Your task to perform on an android device: Empty the shopping cart on bestbuy. Search for razer huntsman on bestbuy, select the first entry, and add it to the cart. Image 0: 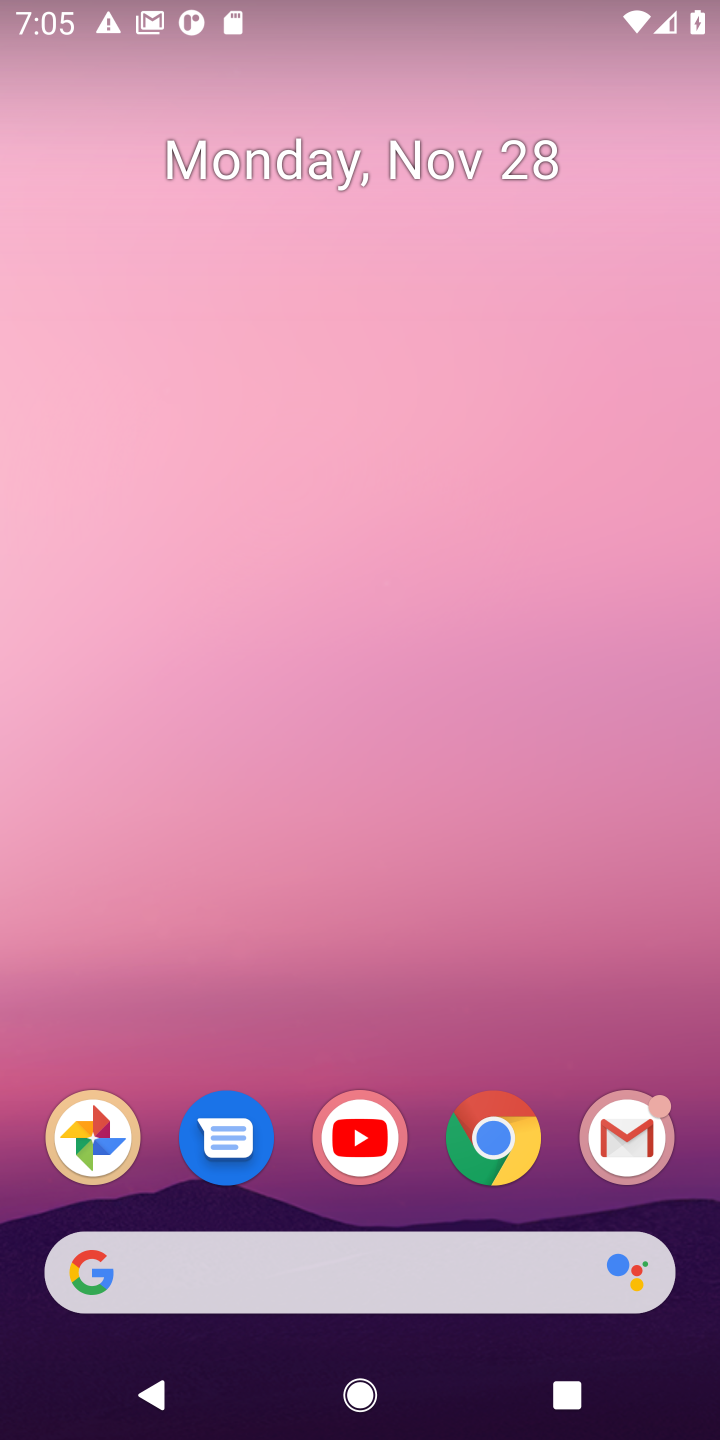
Step 0: click (486, 1142)
Your task to perform on an android device: Empty the shopping cart on bestbuy. Search for razer huntsman on bestbuy, select the first entry, and add it to the cart. Image 1: 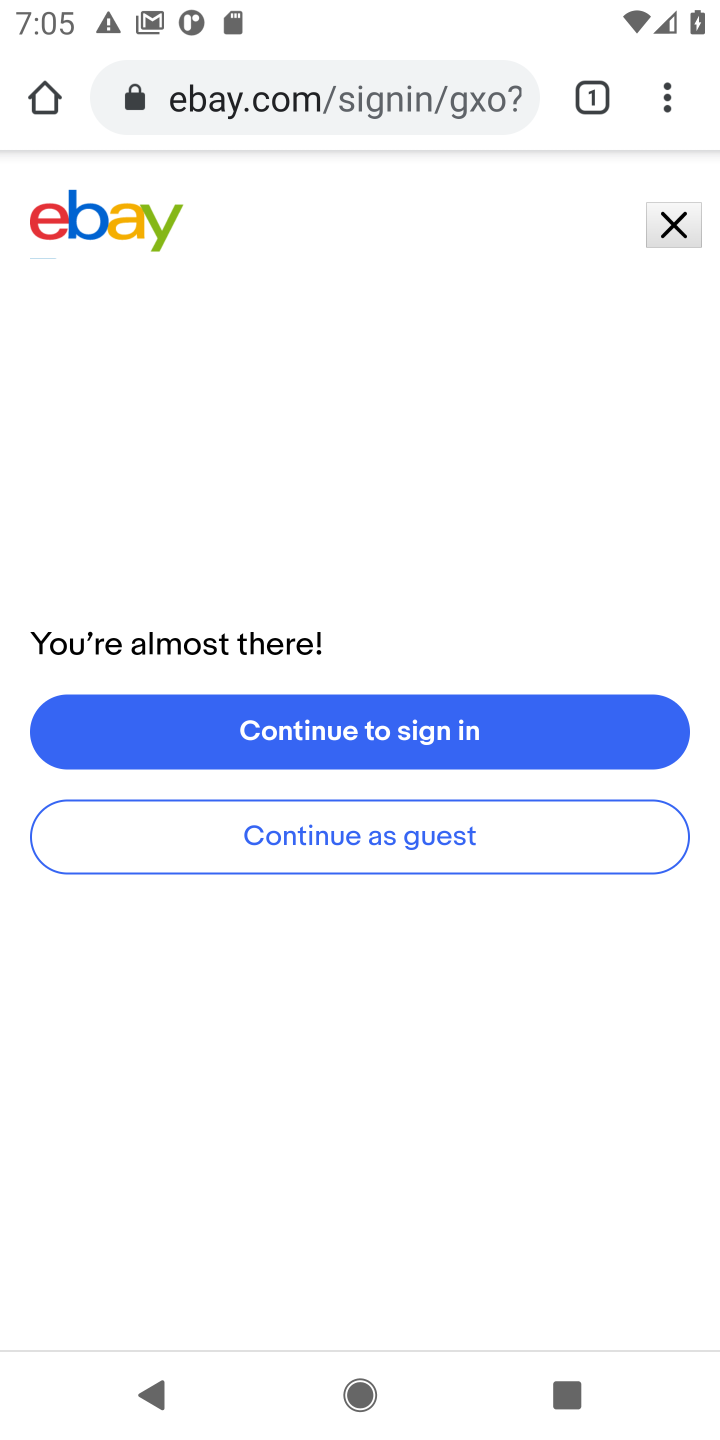
Step 1: click (274, 100)
Your task to perform on an android device: Empty the shopping cart on bestbuy. Search for razer huntsman on bestbuy, select the first entry, and add it to the cart. Image 2: 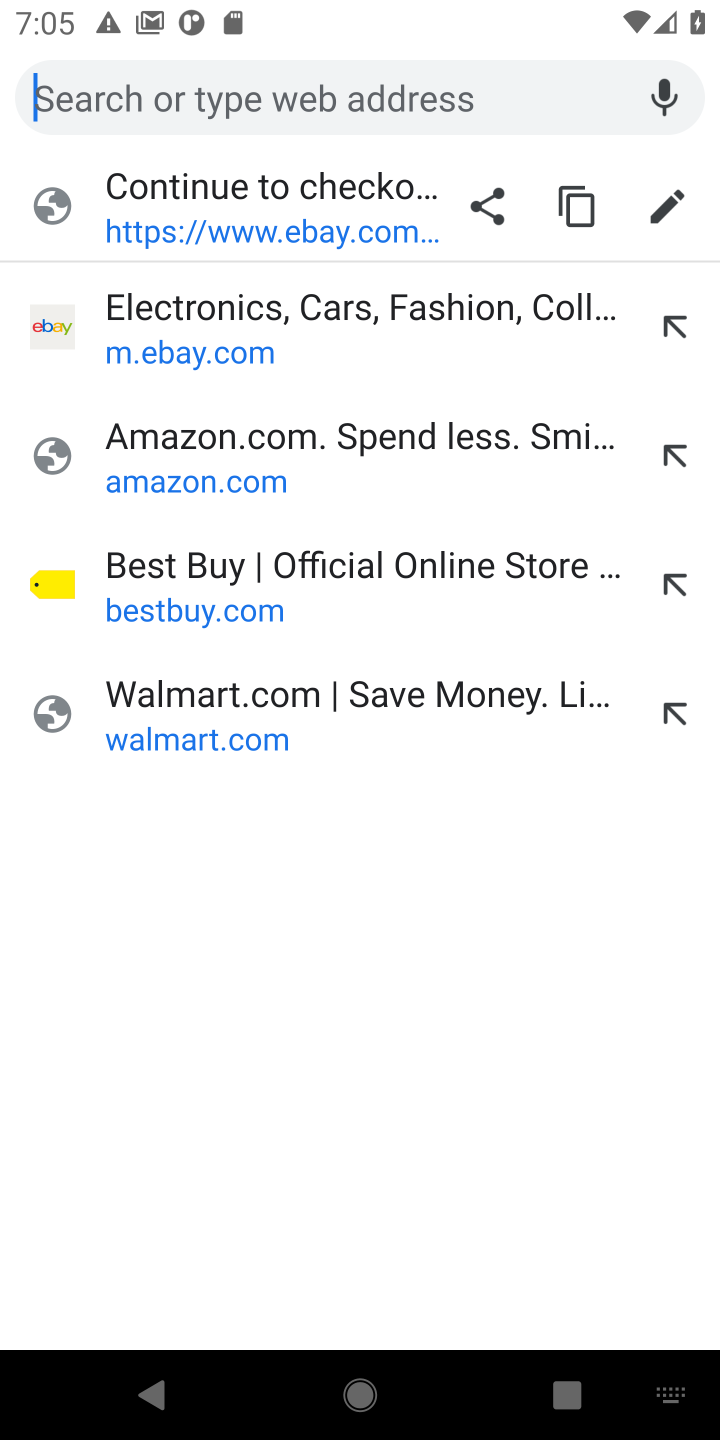
Step 2: click (160, 598)
Your task to perform on an android device: Empty the shopping cart on bestbuy. Search for razer huntsman on bestbuy, select the first entry, and add it to the cart. Image 3: 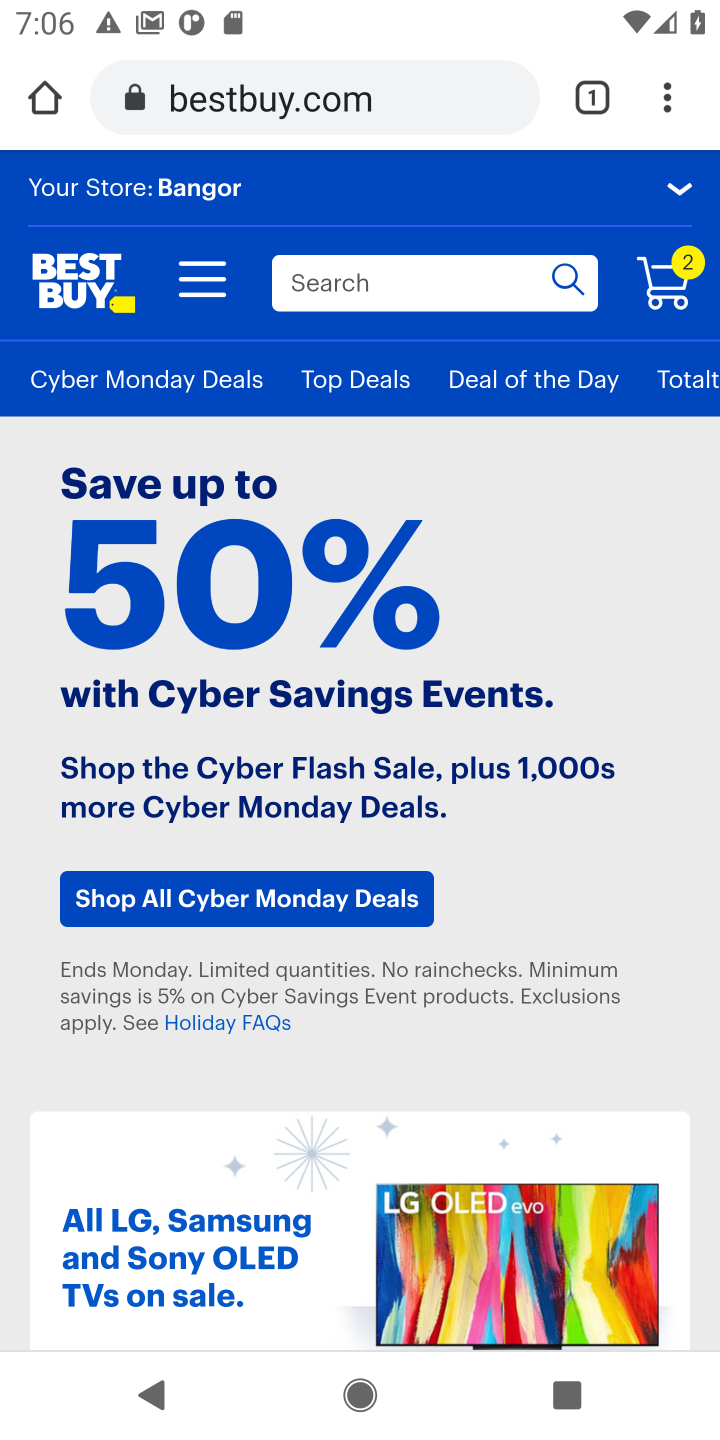
Step 3: click (661, 282)
Your task to perform on an android device: Empty the shopping cart on bestbuy. Search for razer huntsman on bestbuy, select the first entry, and add it to the cart. Image 4: 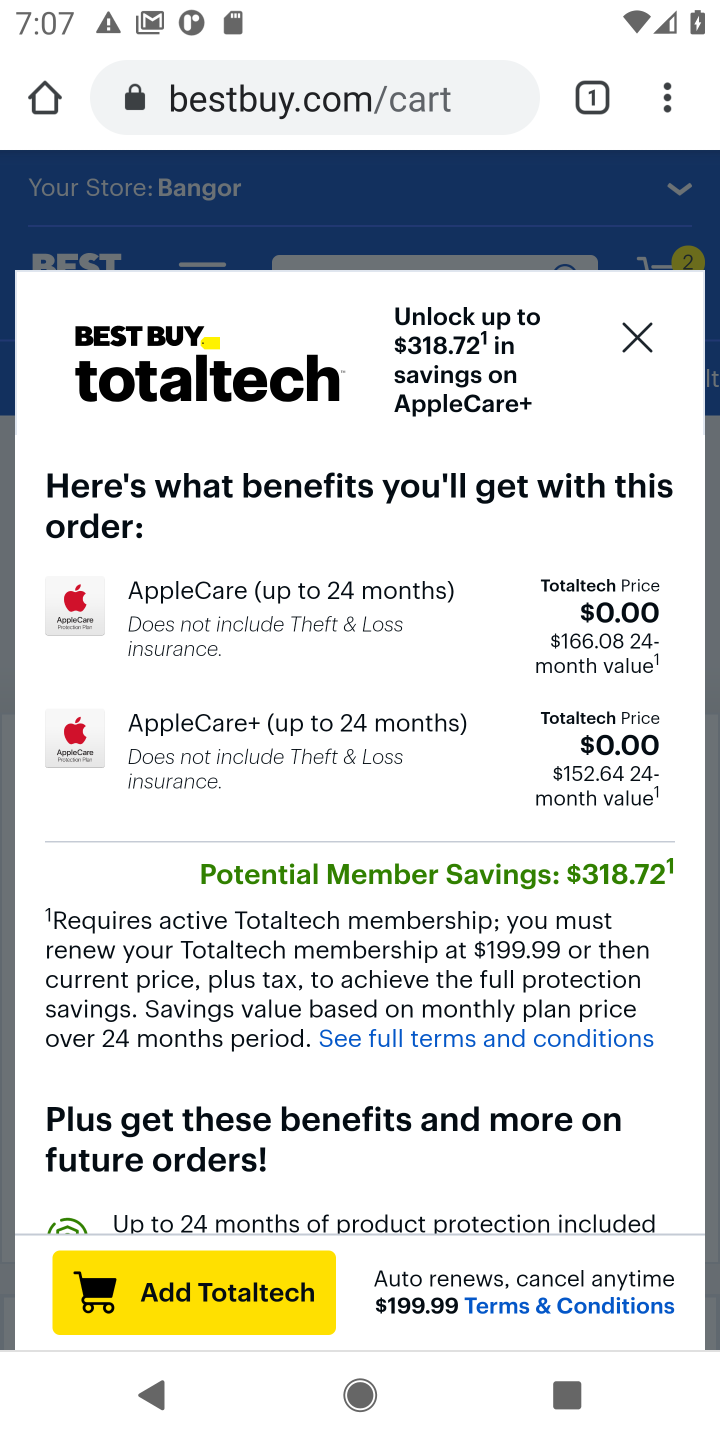
Step 4: click (636, 343)
Your task to perform on an android device: Empty the shopping cart on bestbuy. Search for razer huntsman on bestbuy, select the first entry, and add it to the cart. Image 5: 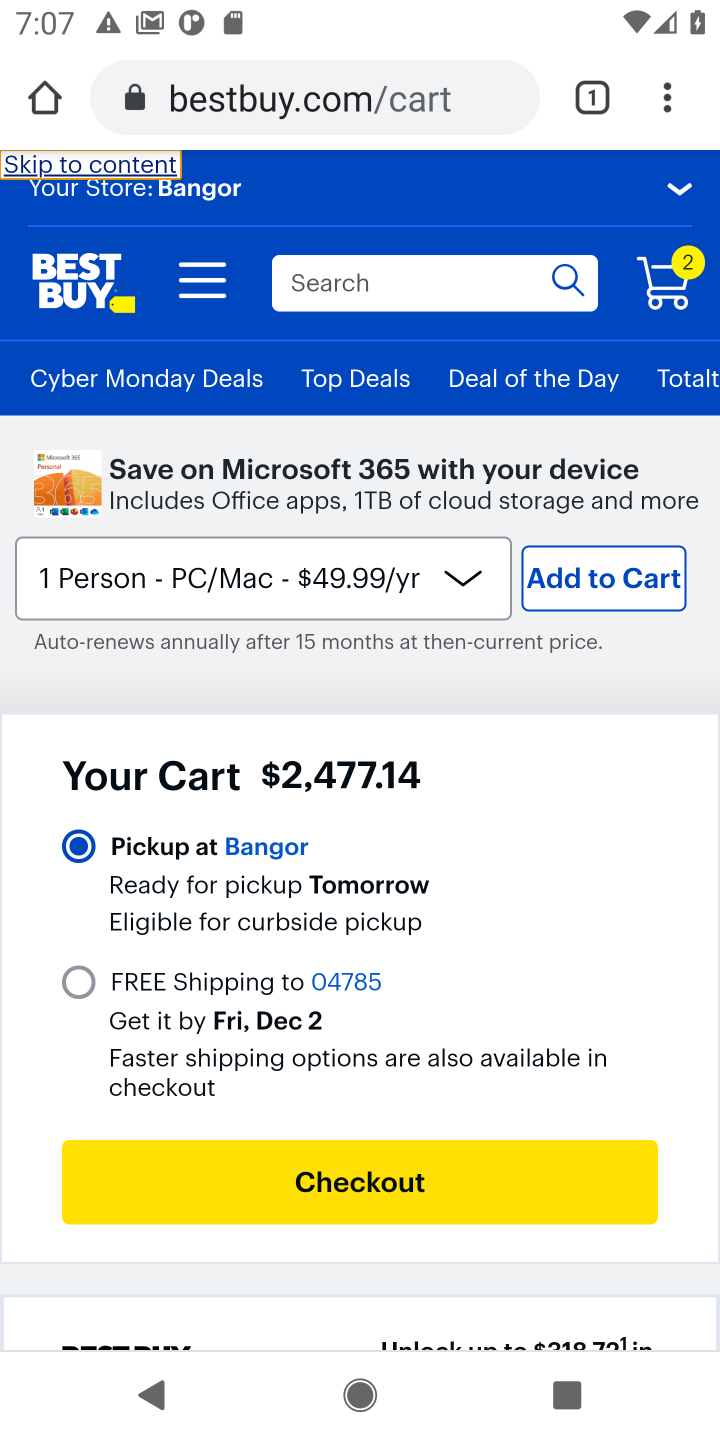
Step 5: drag from (500, 797) to (520, 242)
Your task to perform on an android device: Empty the shopping cart on bestbuy. Search for razer huntsman on bestbuy, select the first entry, and add it to the cart. Image 6: 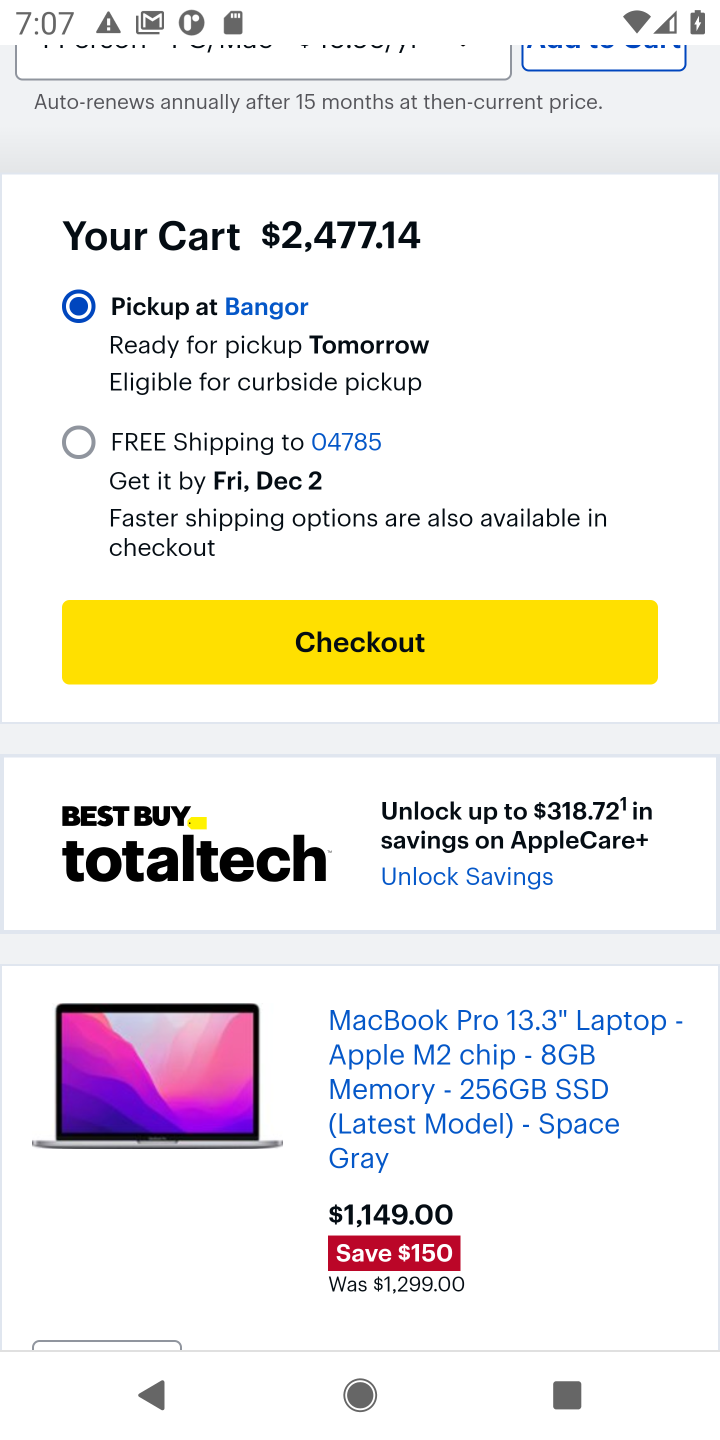
Step 6: drag from (455, 786) to (461, 198)
Your task to perform on an android device: Empty the shopping cart on bestbuy. Search for razer huntsman on bestbuy, select the first entry, and add it to the cart. Image 7: 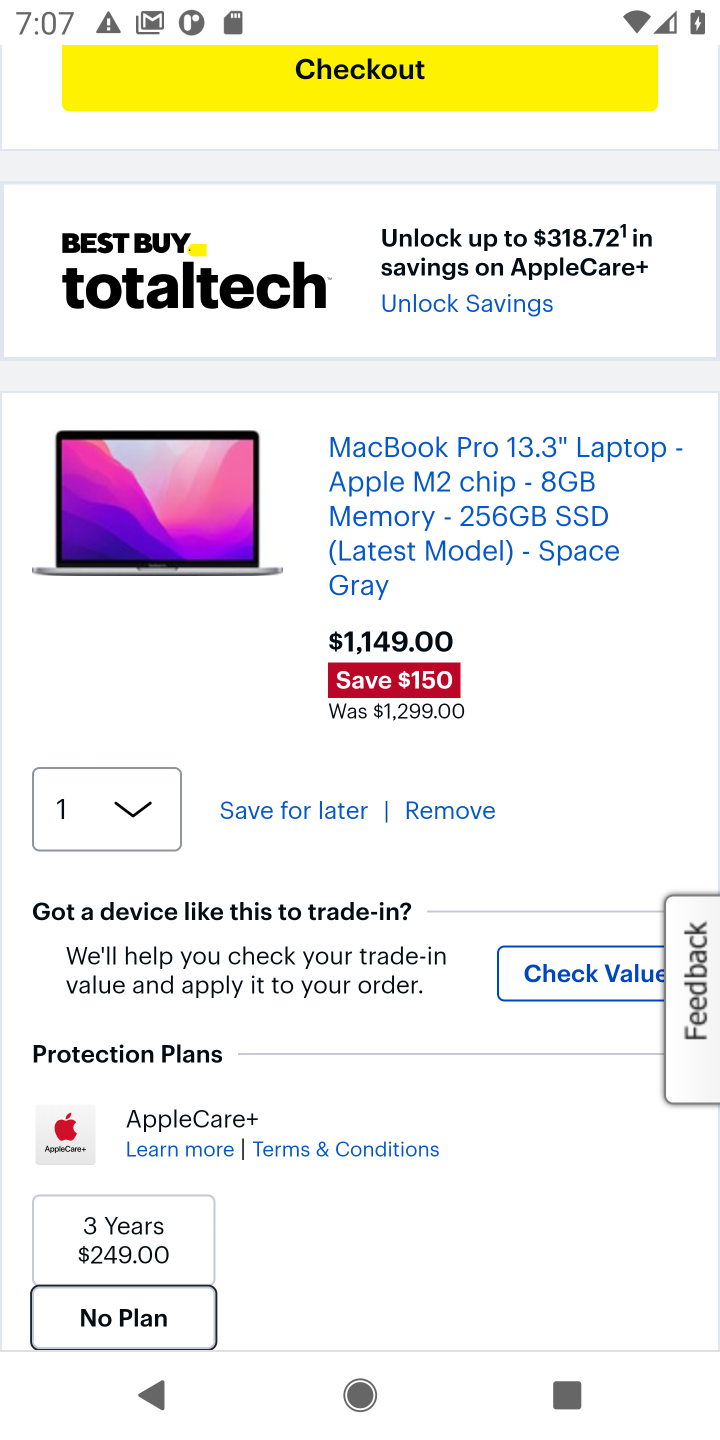
Step 7: click (431, 808)
Your task to perform on an android device: Empty the shopping cart on bestbuy. Search for razer huntsman on bestbuy, select the first entry, and add it to the cart. Image 8: 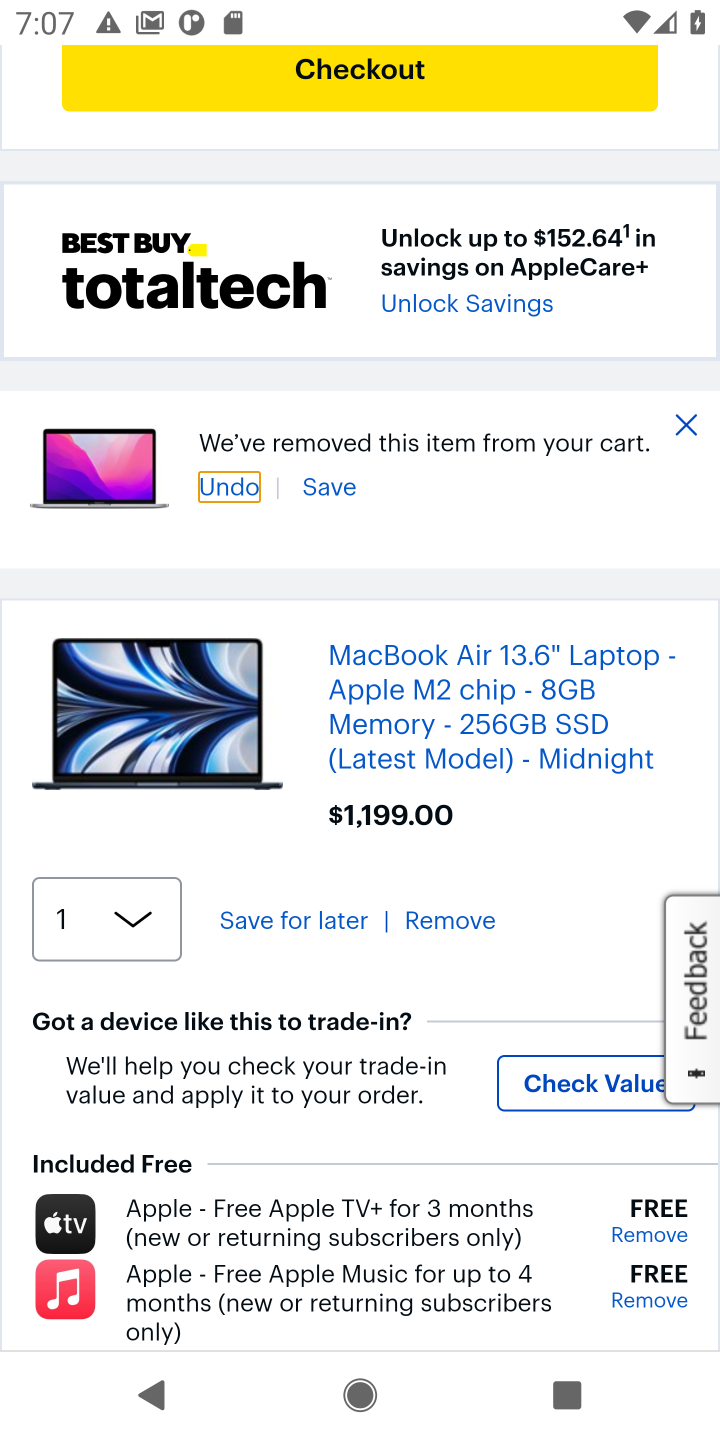
Step 8: click (458, 920)
Your task to perform on an android device: Empty the shopping cart on bestbuy. Search for razer huntsman on bestbuy, select the first entry, and add it to the cart. Image 9: 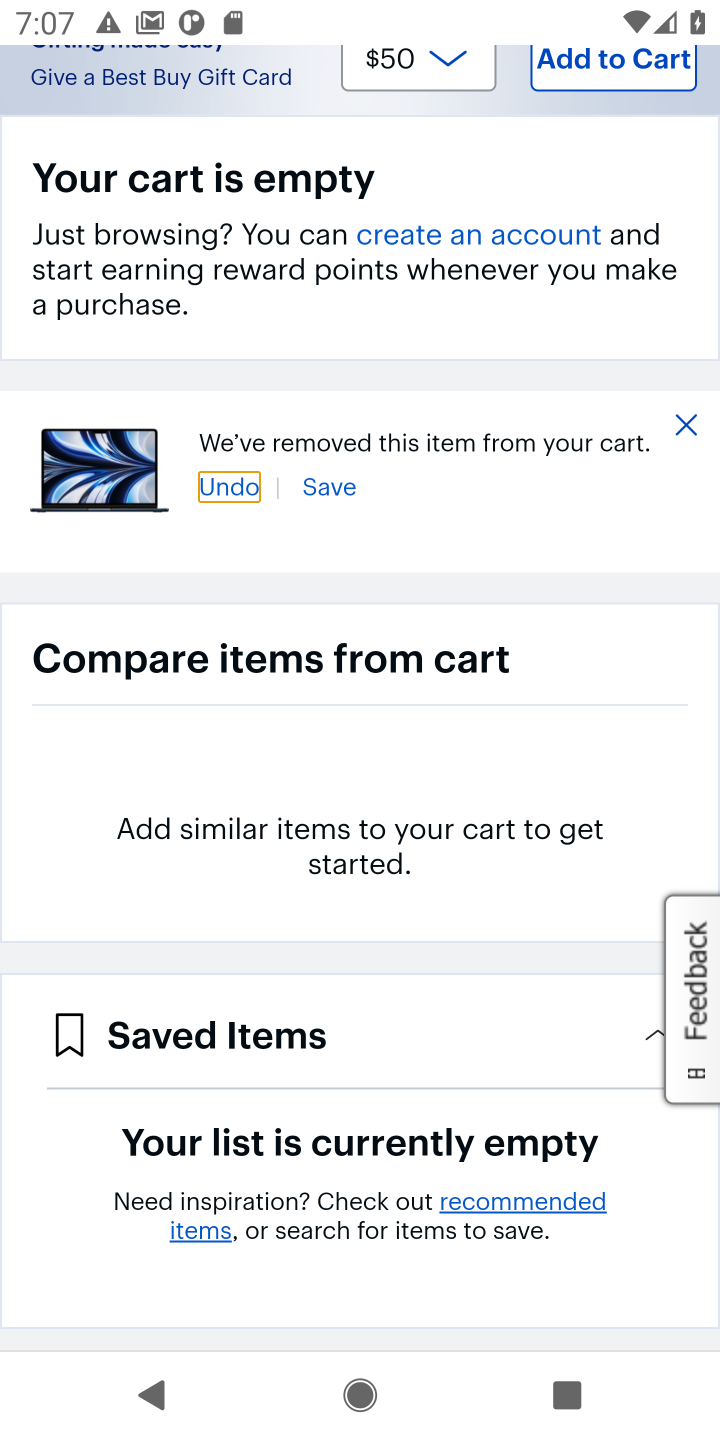
Step 9: drag from (624, 619) to (514, 1099)
Your task to perform on an android device: Empty the shopping cart on bestbuy. Search for razer huntsman on bestbuy, select the first entry, and add it to the cart. Image 10: 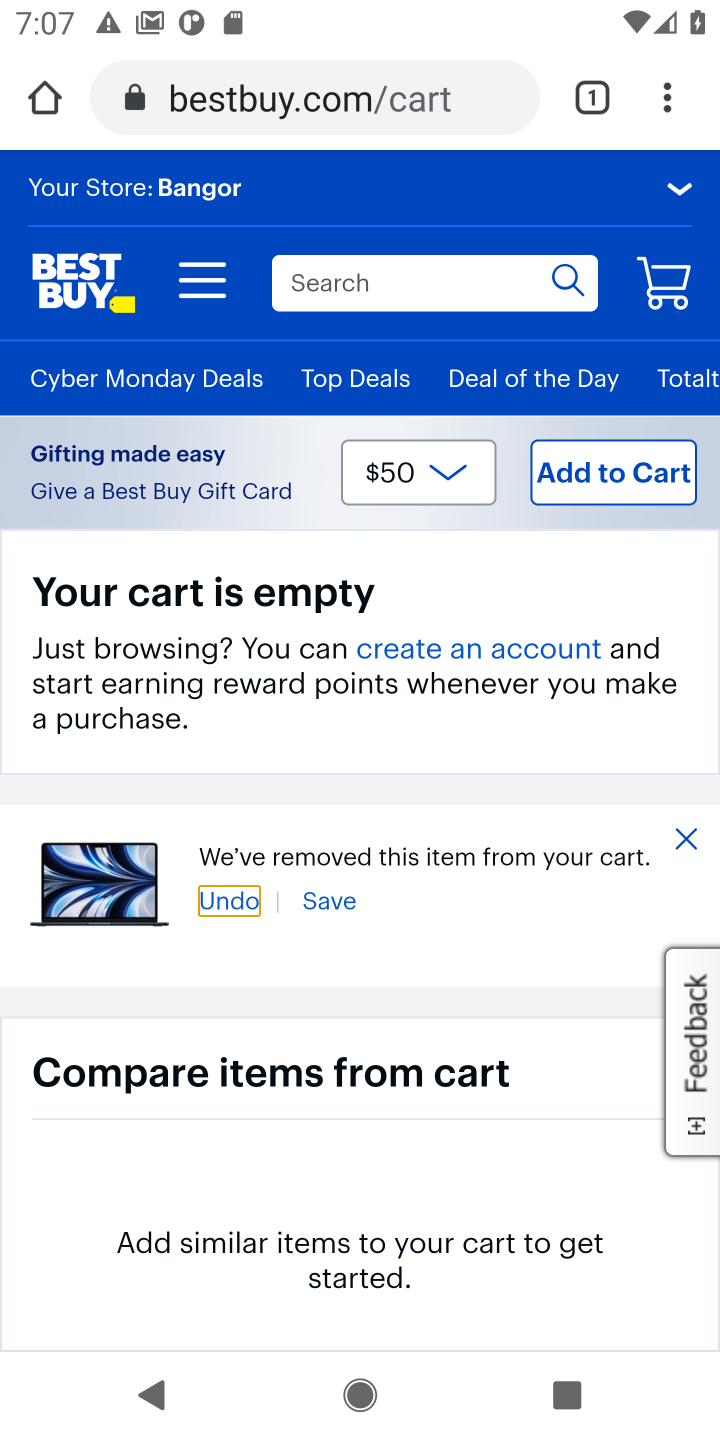
Step 10: click (318, 282)
Your task to perform on an android device: Empty the shopping cart on bestbuy. Search for razer huntsman on bestbuy, select the first entry, and add it to the cart. Image 11: 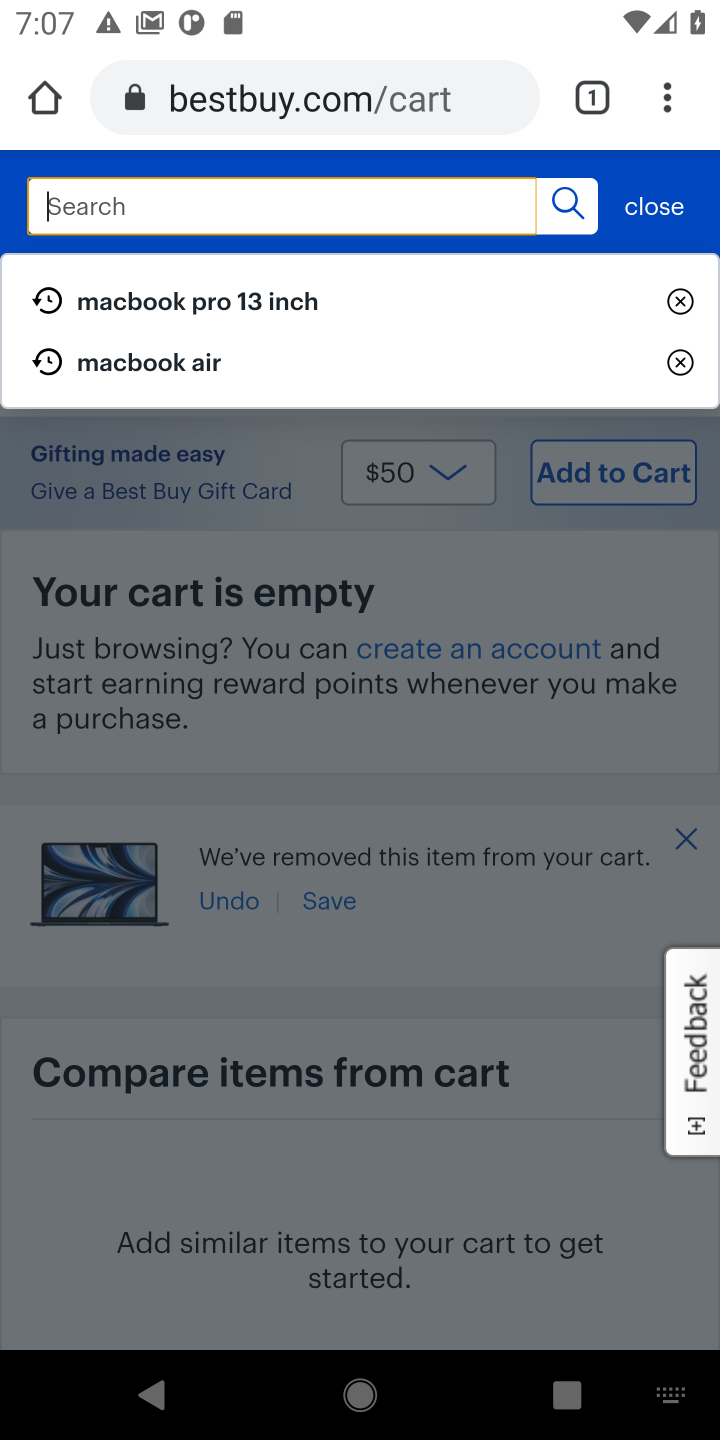
Step 11: type " razer huntsman"
Your task to perform on an android device: Empty the shopping cart on bestbuy. Search for razer huntsman on bestbuy, select the first entry, and add it to the cart. Image 12: 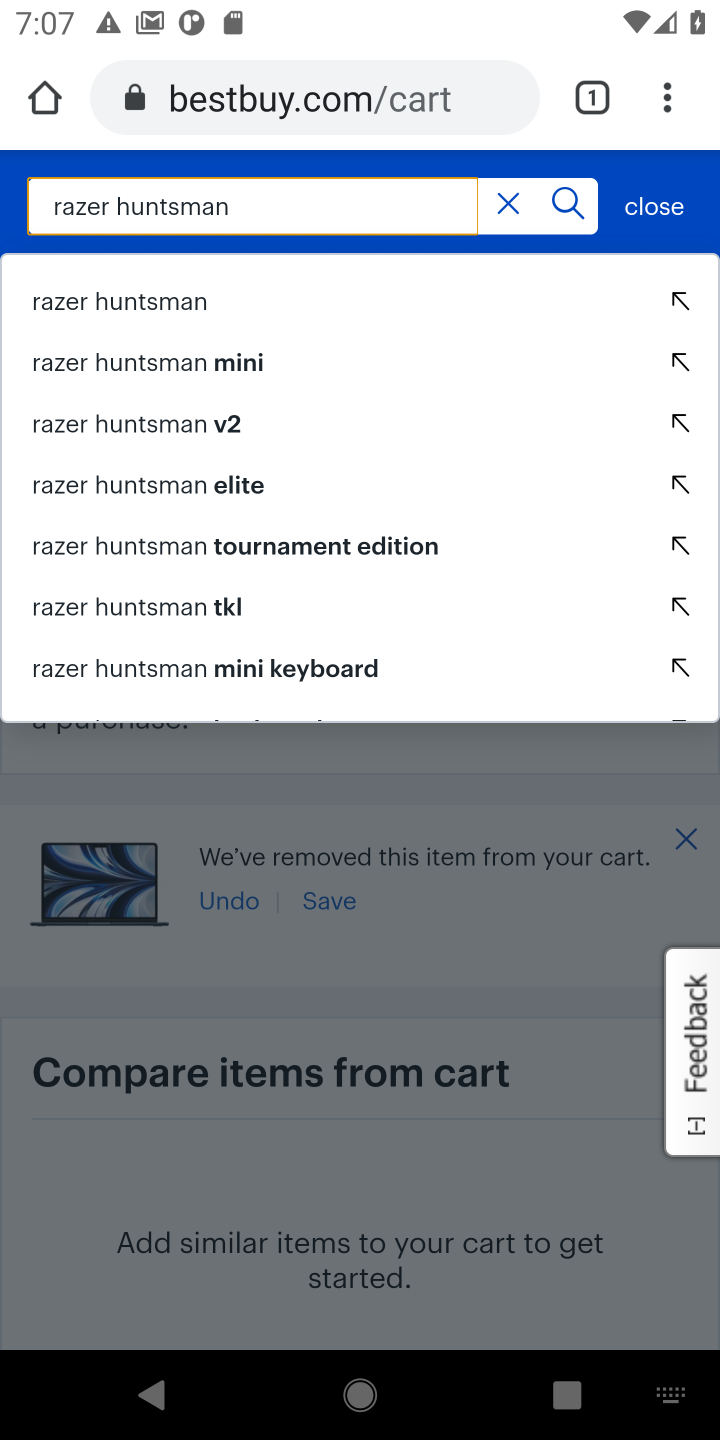
Step 12: click (564, 199)
Your task to perform on an android device: Empty the shopping cart on bestbuy. Search for razer huntsman on bestbuy, select the first entry, and add it to the cart. Image 13: 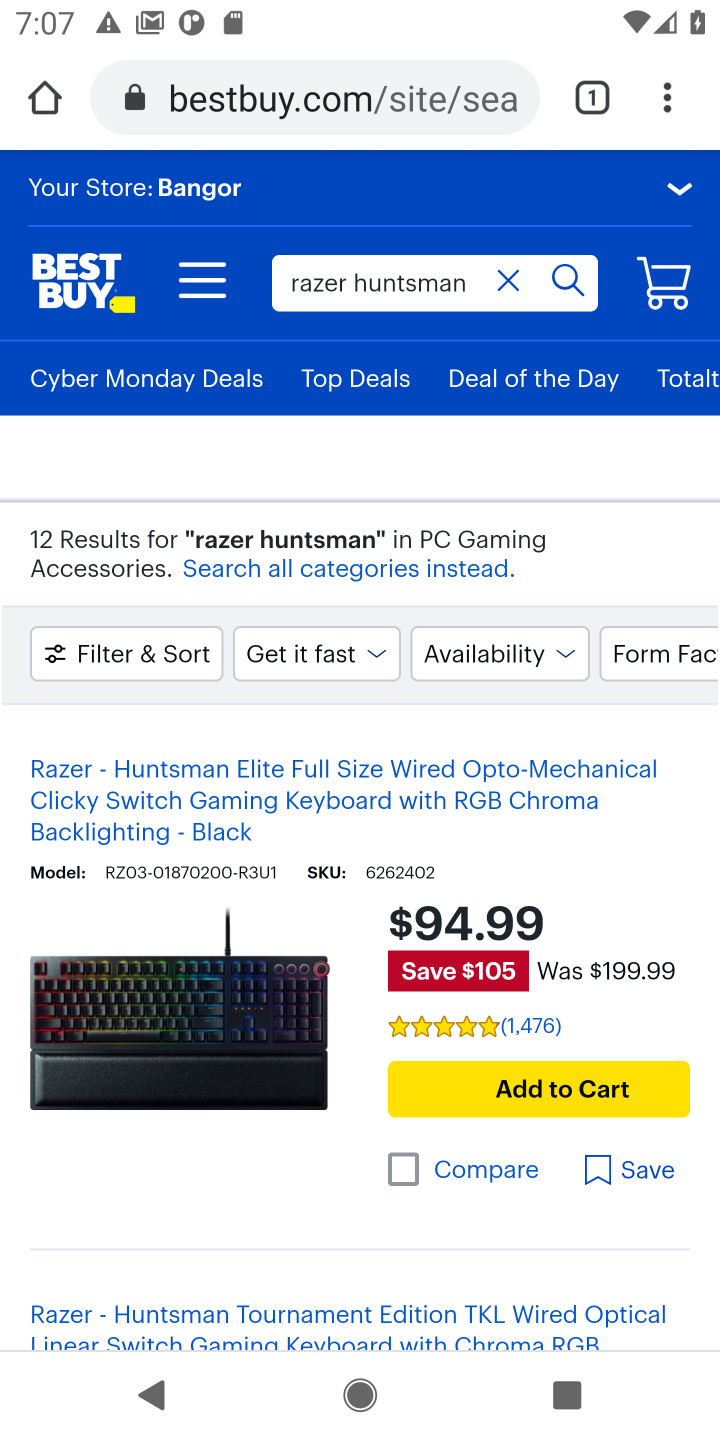
Step 13: drag from (322, 933) to (364, 604)
Your task to perform on an android device: Empty the shopping cart on bestbuy. Search for razer huntsman on bestbuy, select the first entry, and add it to the cart. Image 14: 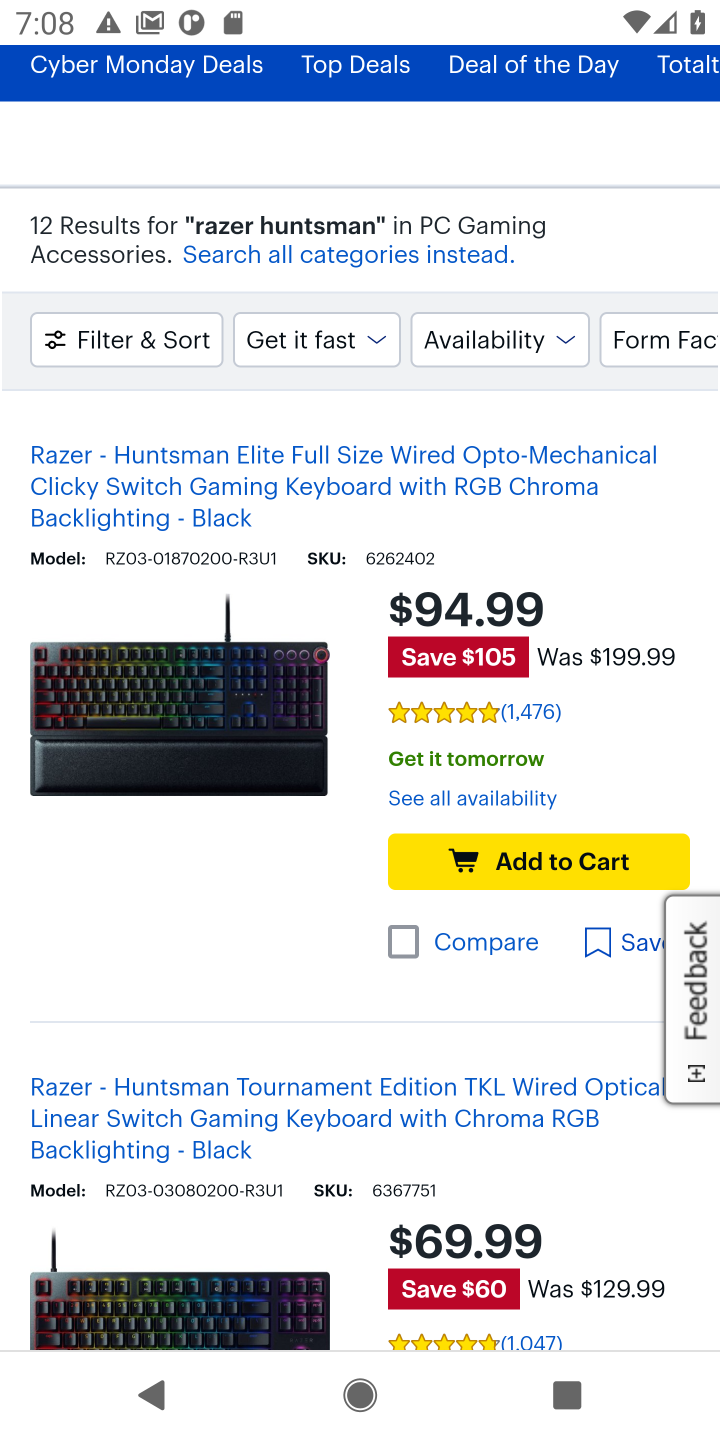
Step 14: click (517, 850)
Your task to perform on an android device: Empty the shopping cart on bestbuy. Search for razer huntsman on bestbuy, select the first entry, and add it to the cart. Image 15: 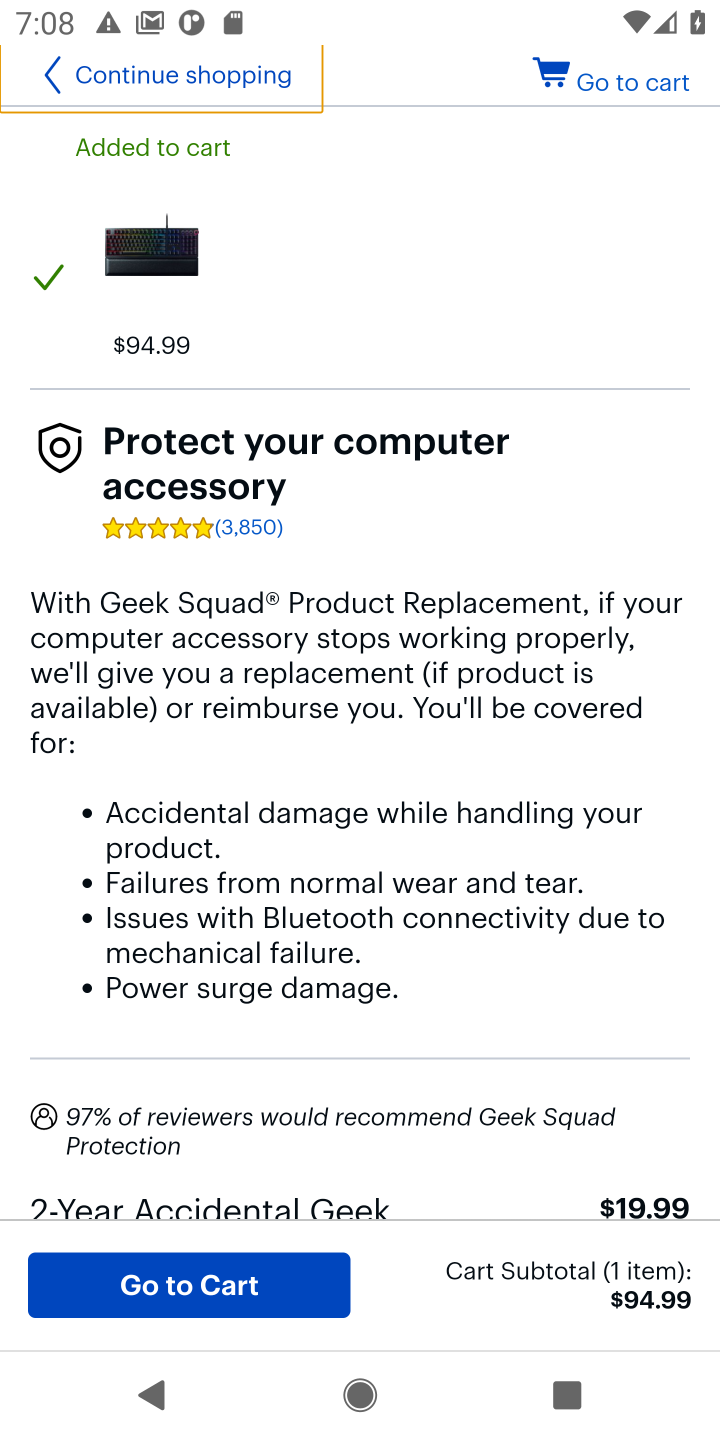
Step 15: task complete